Your task to perform on an android device: move a message to another label in the gmail app Image 0: 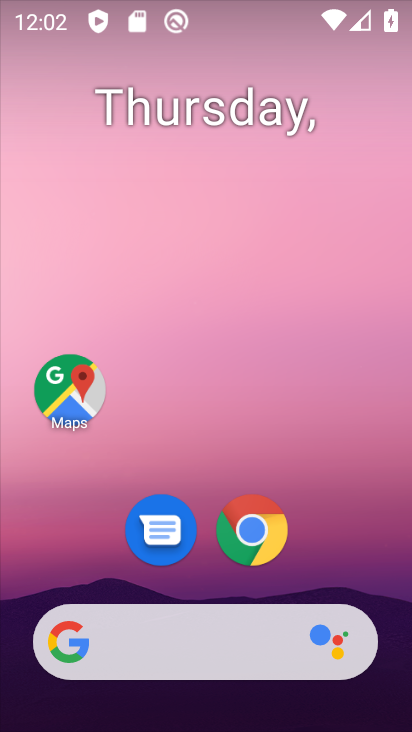
Step 0: drag from (230, 613) to (216, 234)
Your task to perform on an android device: move a message to another label in the gmail app Image 1: 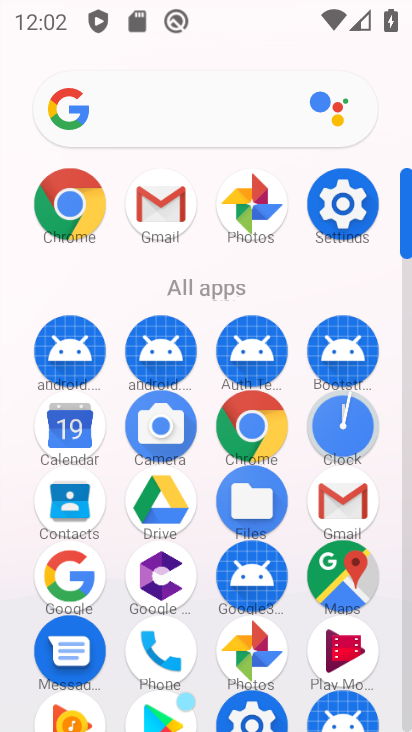
Step 1: click (158, 196)
Your task to perform on an android device: move a message to another label in the gmail app Image 2: 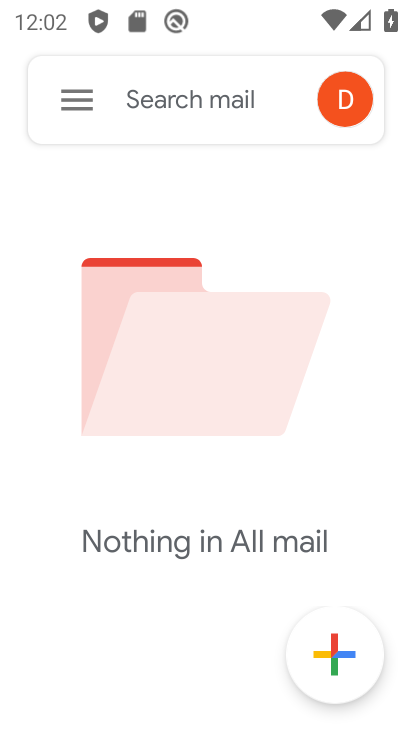
Step 2: click (68, 107)
Your task to perform on an android device: move a message to another label in the gmail app Image 3: 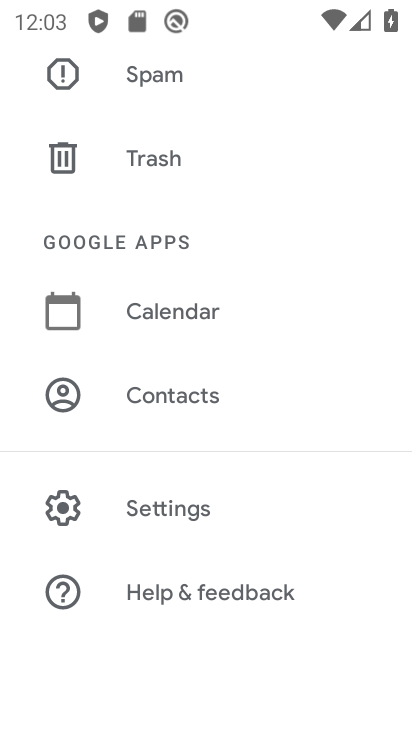
Step 3: drag from (154, 197) to (148, 475)
Your task to perform on an android device: move a message to another label in the gmail app Image 4: 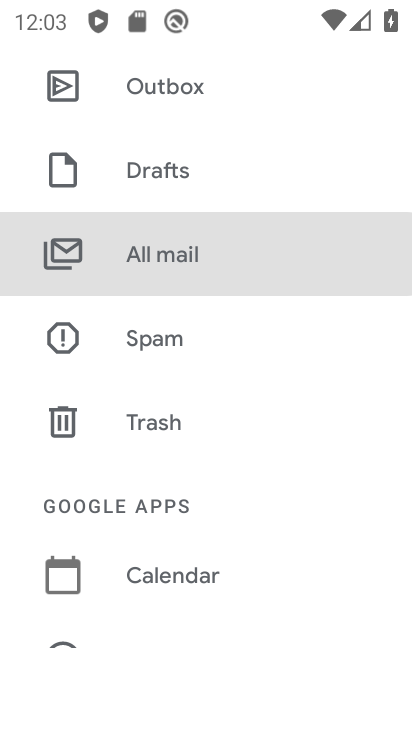
Step 4: click (169, 264)
Your task to perform on an android device: move a message to another label in the gmail app Image 5: 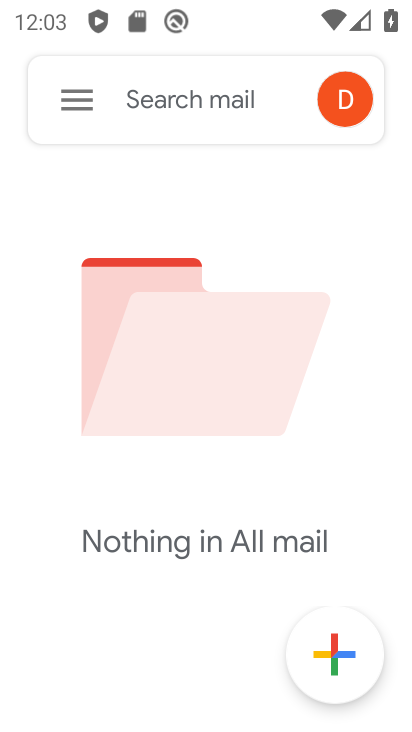
Step 5: task complete